Your task to perform on an android device: empty trash in google photos Image 0: 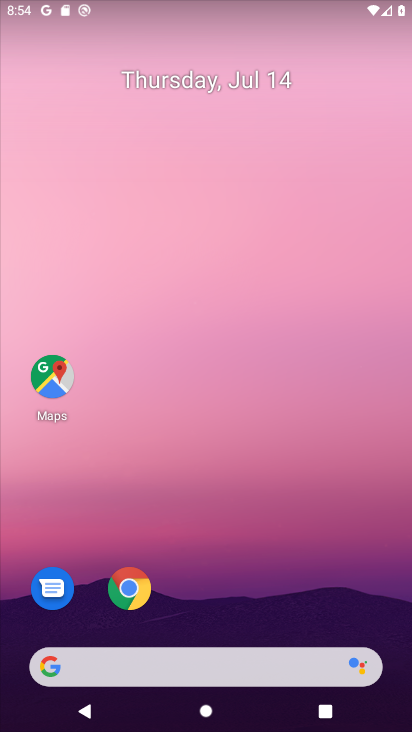
Step 0: drag from (276, 671) to (229, 69)
Your task to perform on an android device: empty trash in google photos Image 1: 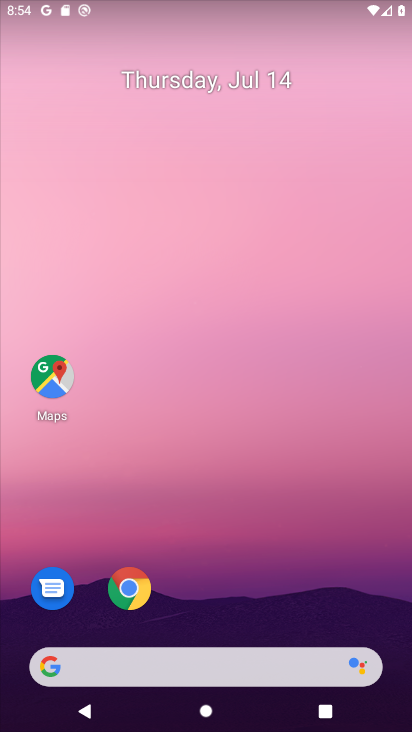
Step 1: drag from (239, 671) to (210, 294)
Your task to perform on an android device: empty trash in google photos Image 2: 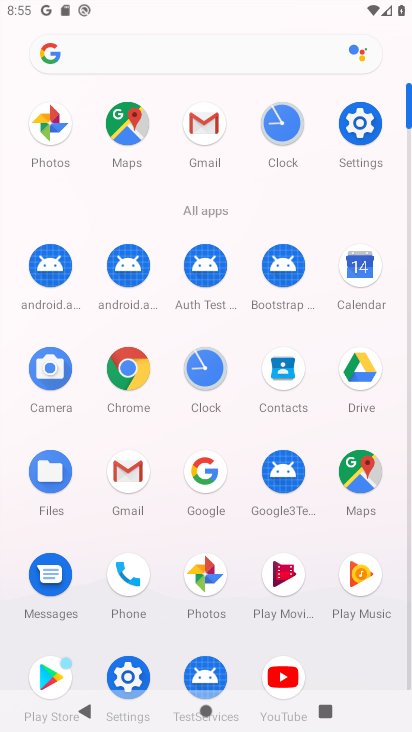
Step 2: drag from (185, 438) to (209, 491)
Your task to perform on an android device: empty trash in google photos Image 3: 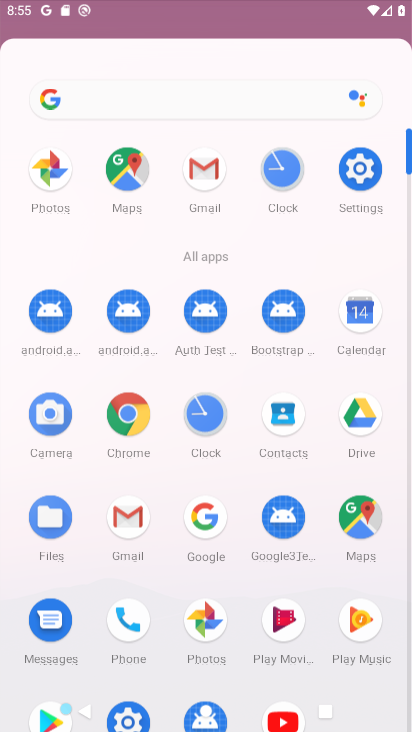
Step 3: click (207, 480)
Your task to perform on an android device: empty trash in google photos Image 4: 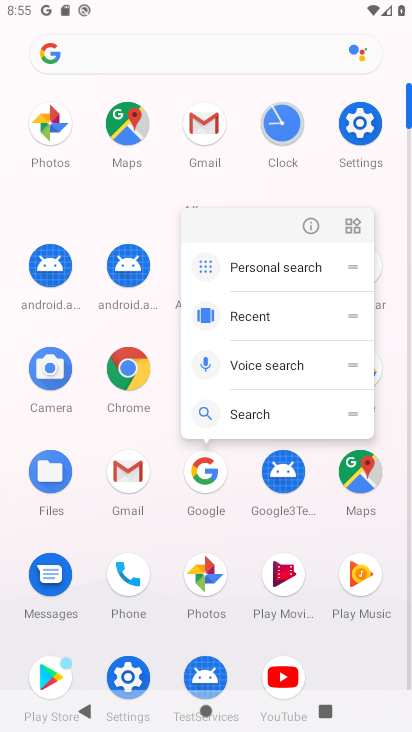
Step 4: click (203, 573)
Your task to perform on an android device: empty trash in google photos Image 5: 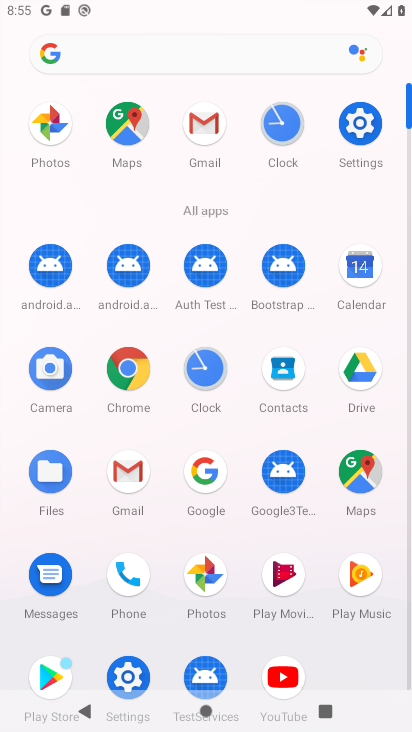
Step 5: click (201, 578)
Your task to perform on an android device: empty trash in google photos Image 6: 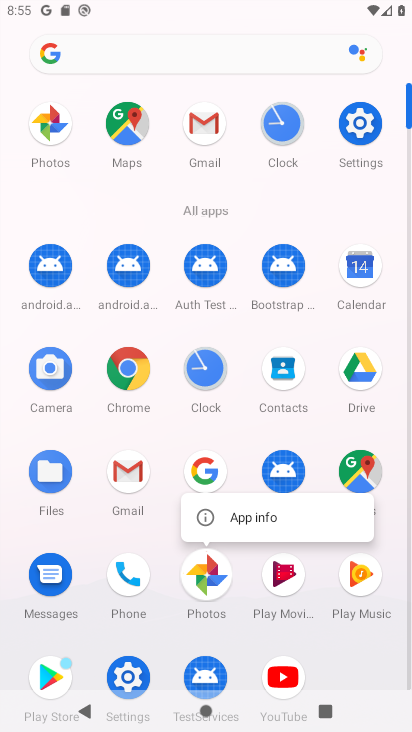
Step 6: click (205, 562)
Your task to perform on an android device: empty trash in google photos Image 7: 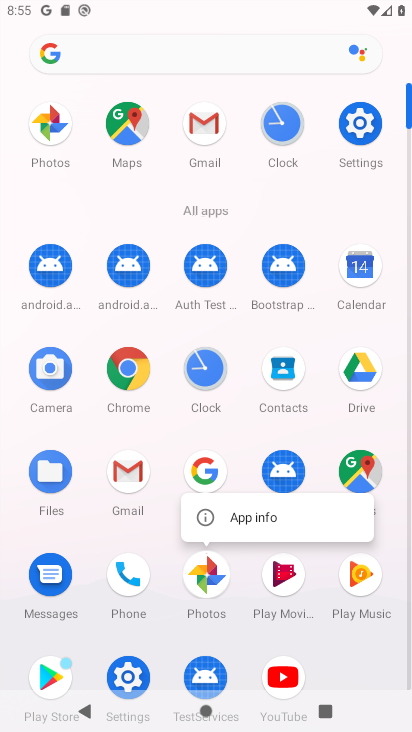
Step 7: click (205, 562)
Your task to perform on an android device: empty trash in google photos Image 8: 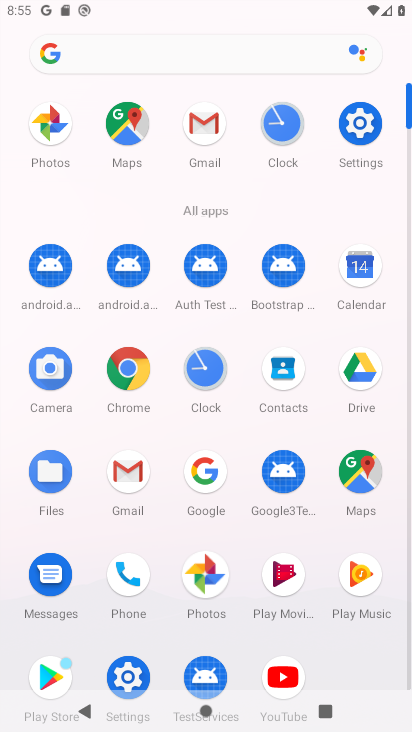
Step 8: click (202, 560)
Your task to perform on an android device: empty trash in google photos Image 9: 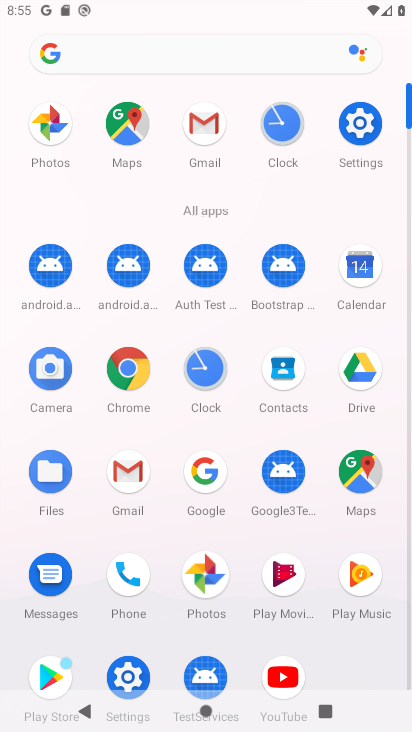
Step 9: click (201, 562)
Your task to perform on an android device: empty trash in google photos Image 10: 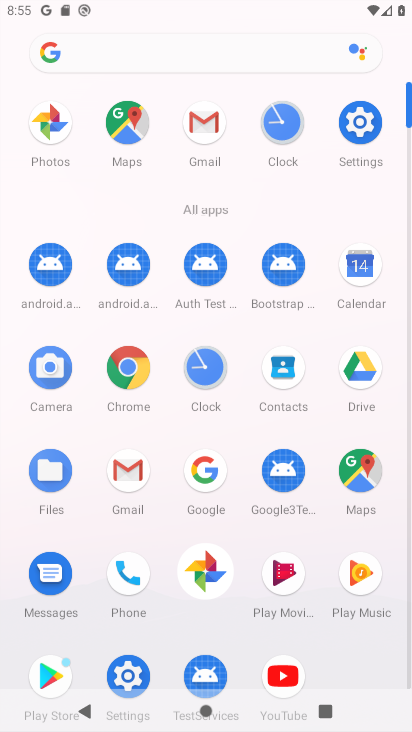
Step 10: click (212, 558)
Your task to perform on an android device: empty trash in google photos Image 11: 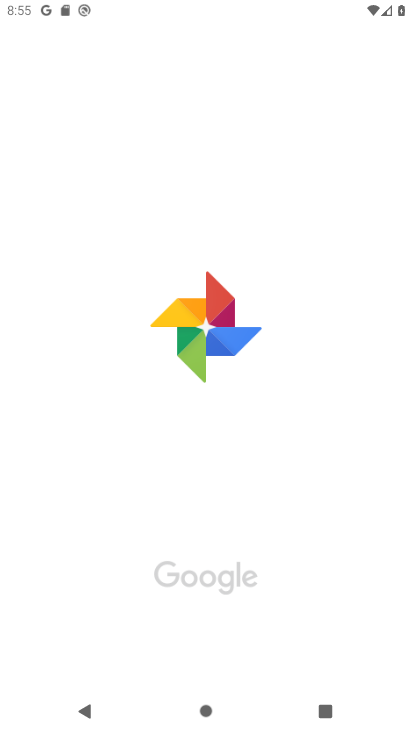
Step 11: click (212, 557)
Your task to perform on an android device: empty trash in google photos Image 12: 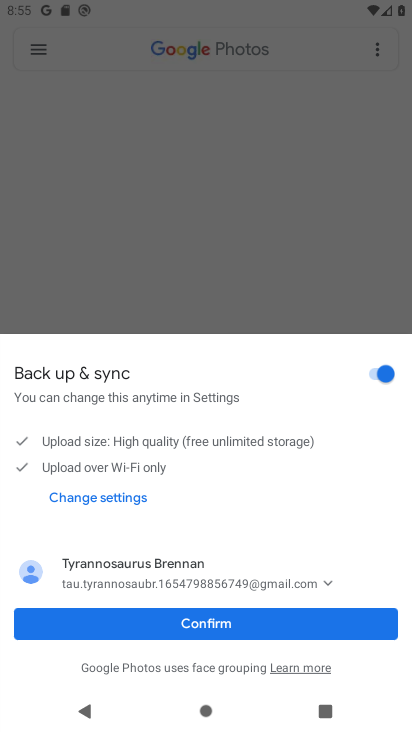
Step 12: click (201, 185)
Your task to perform on an android device: empty trash in google photos Image 13: 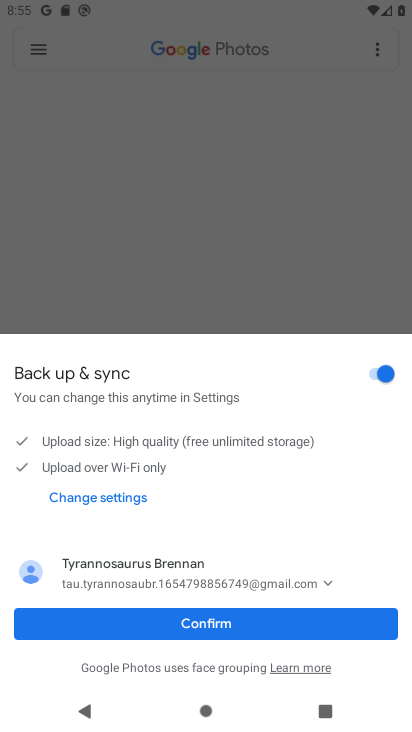
Step 13: click (201, 186)
Your task to perform on an android device: empty trash in google photos Image 14: 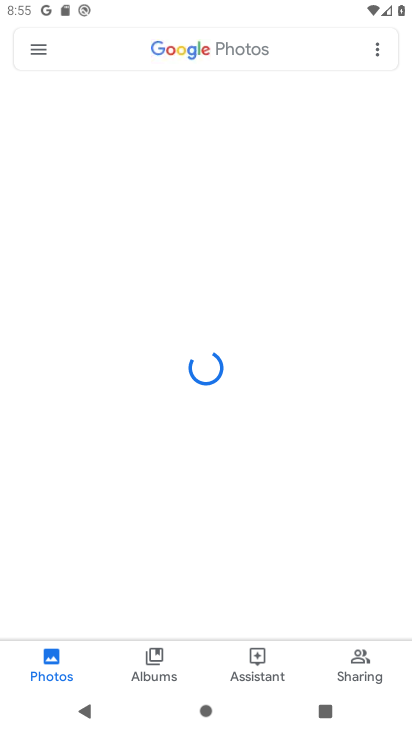
Step 14: click (201, 186)
Your task to perform on an android device: empty trash in google photos Image 15: 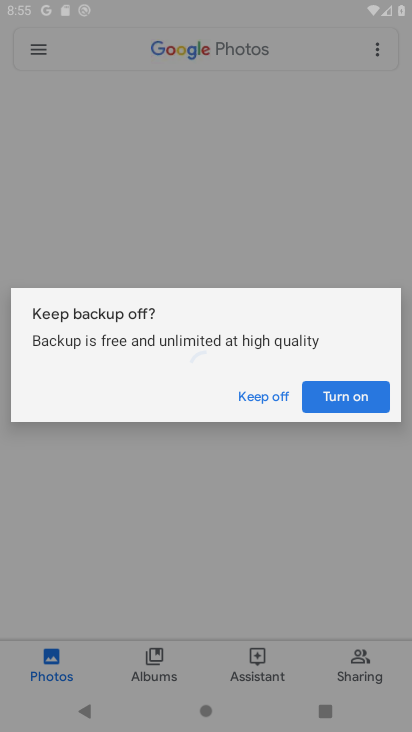
Step 15: click (201, 186)
Your task to perform on an android device: empty trash in google photos Image 16: 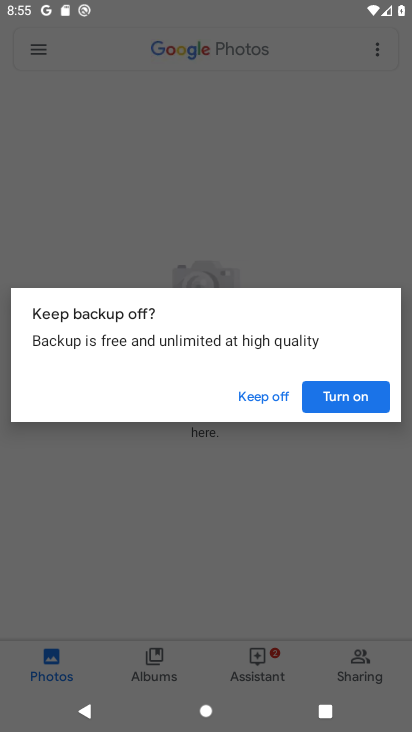
Step 16: click (257, 384)
Your task to perform on an android device: empty trash in google photos Image 17: 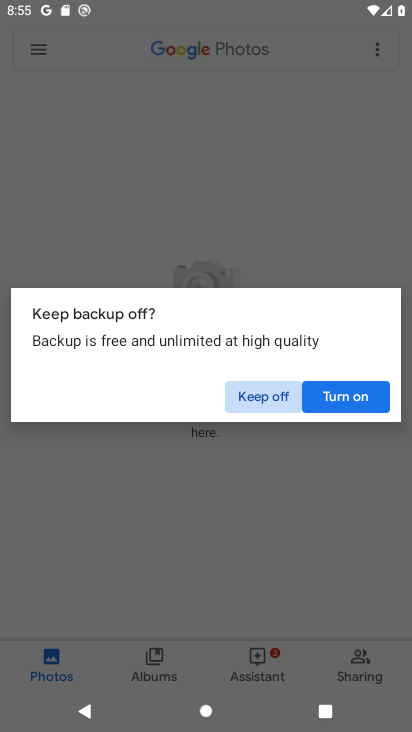
Step 17: click (255, 386)
Your task to perform on an android device: empty trash in google photos Image 18: 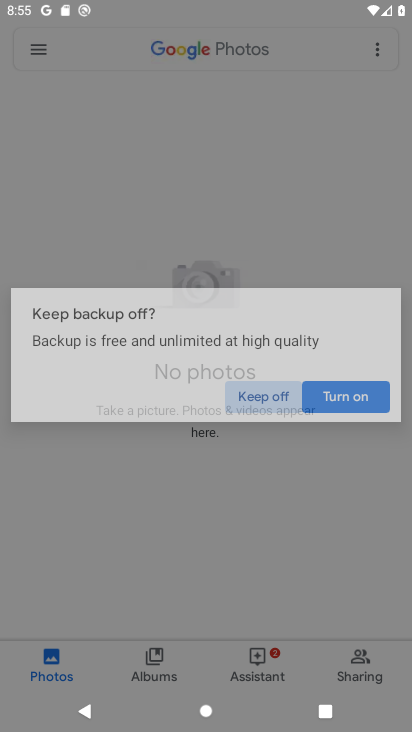
Step 18: click (255, 386)
Your task to perform on an android device: empty trash in google photos Image 19: 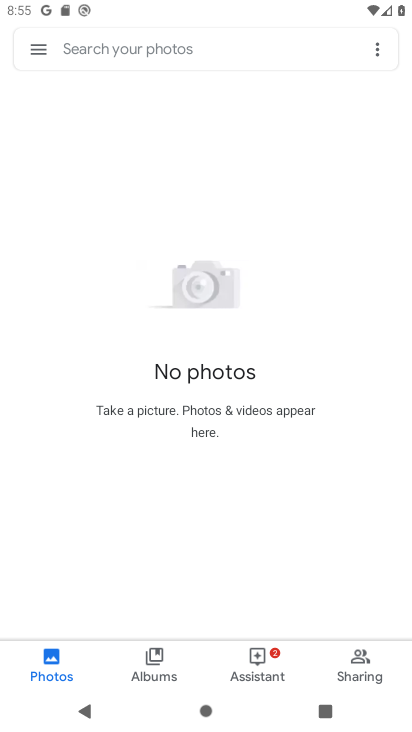
Step 19: click (39, 56)
Your task to perform on an android device: empty trash in google photos Image 20: 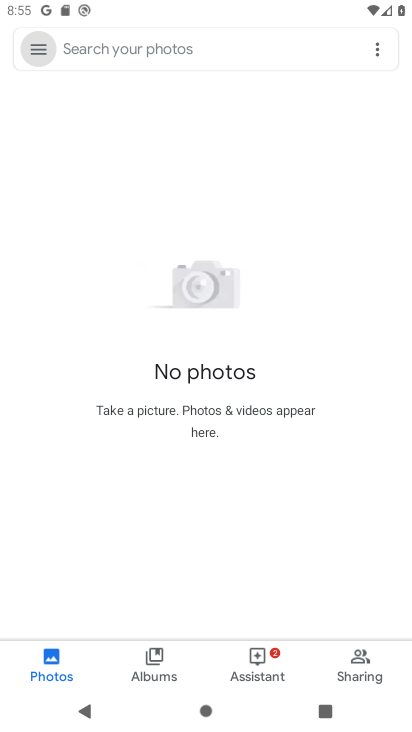
Step 20: drag from (37, 58) to (139, 490)
Your task to perform on an android device: empty trash in google photos Image 21: 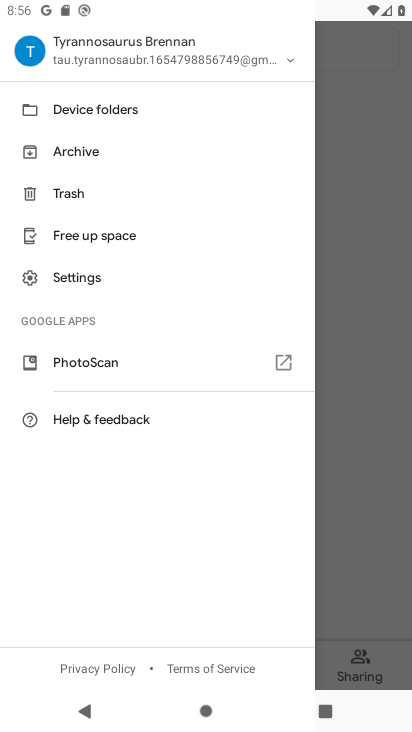
Step 21: click (58, 197)
Your task to perform on an android device: empty trash in google photos Image 22: 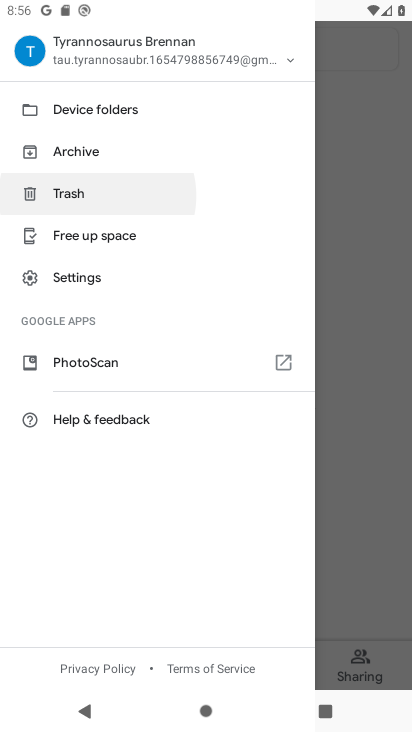
Step 22: click (59, 196)
Your task to perform on an android device: empty trash in google photos Image 23: 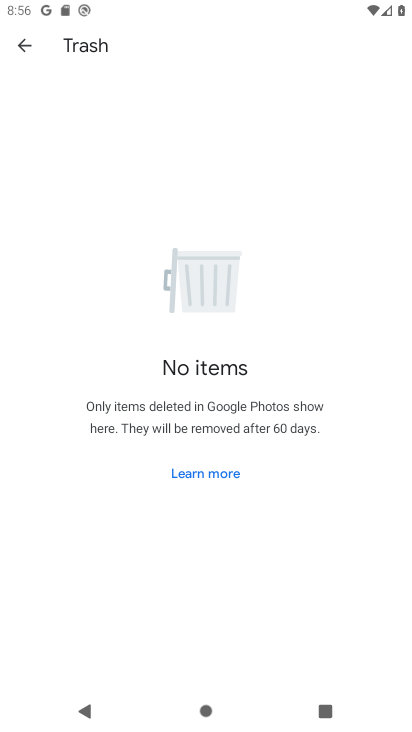
Step 23: task complete